Your task to perform on an android device: add a contact in the contacts app Image 0: 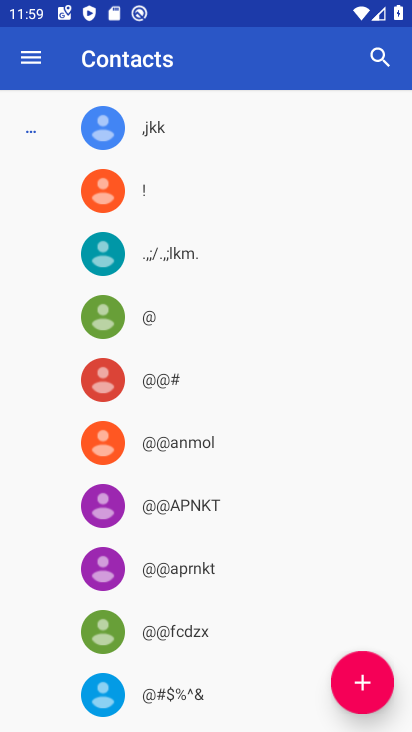
Step 0: click (360, 683)
Your task to perform on an android device: add a contact in the contacts app Image 1: 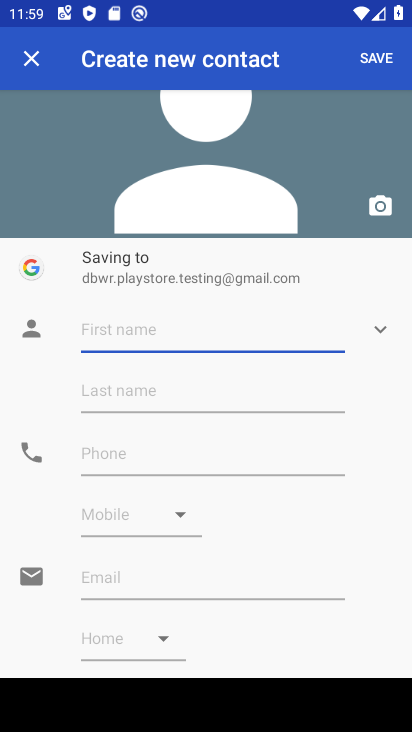
Step 1: type "xvxvxv"
Your task to perform on an android device: add a contact in the contacts app Image 2: 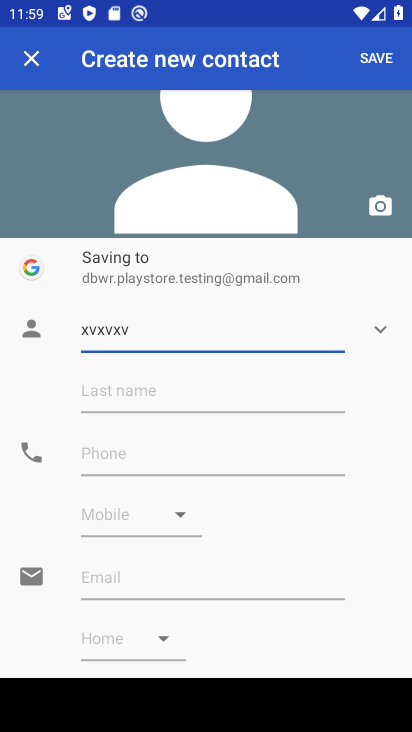
Step 2: click (100, 459)
Your task to perform on an android device: add a contact in the contacts app Image 3: 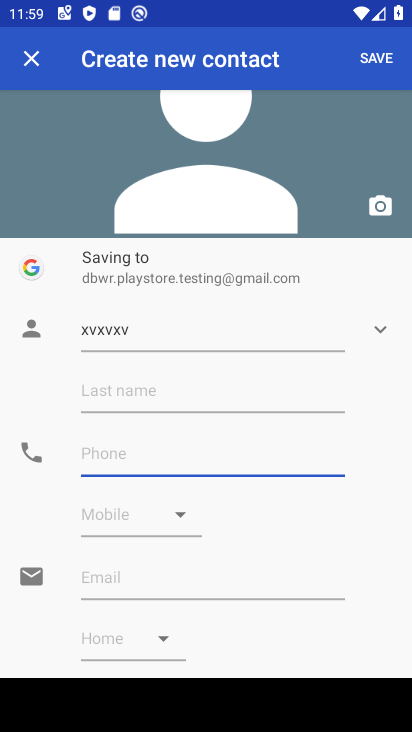
Step 3: type "98989899"
Your task to perform on an android device: add a contact in the contacts app Image 4: 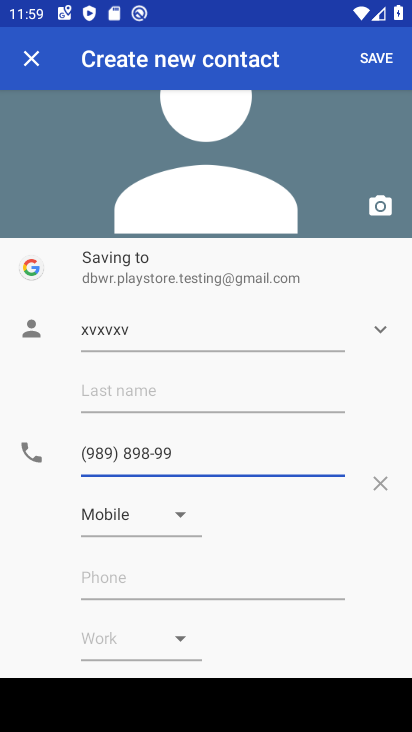
Step 4: click (386, 56)
Your task to perform on an android device: add a contact in the contacts app Image 5: 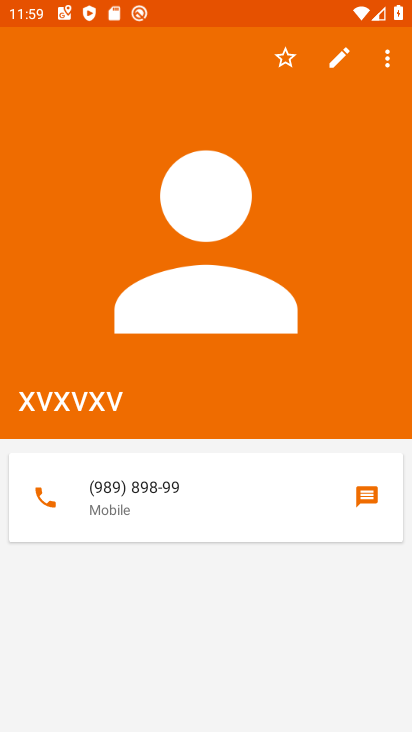
Step 5: task complete